Your task to perform on an android device: Go to Google Image 0: 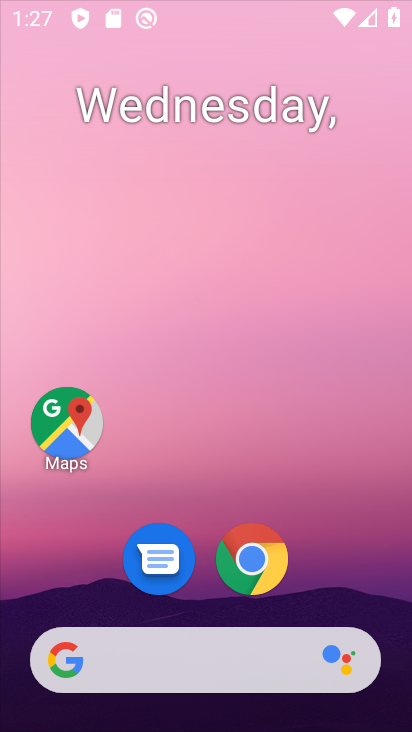
Step 0: drag from (197, 466) to (238, 39)
Your task to perform on an android device: Go to Google Image 1: 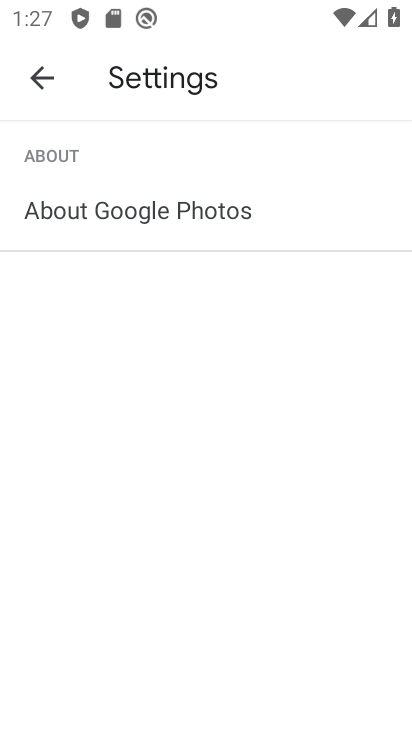
Step 1: press home button
Your task to perform on an android device: Go to Google Image 2: 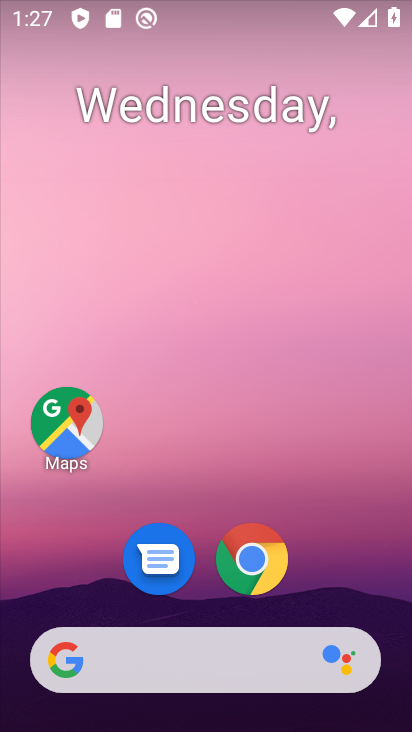
Step 2: click (246, 568)
Your task to perform on an android device: Go to Google Image 3: 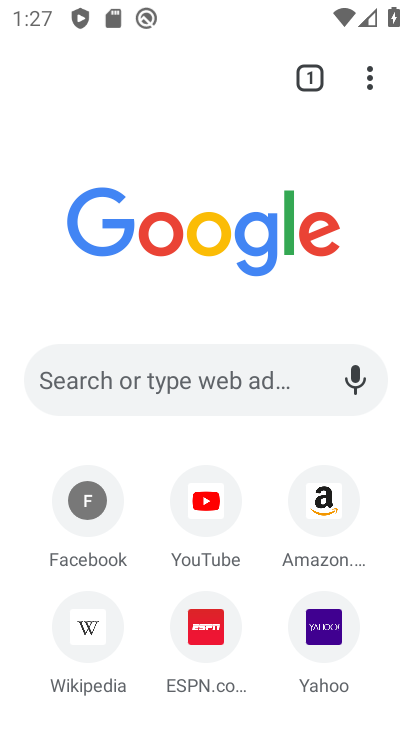
Step 3: task complete